Your task to perform on an android device: remove spam from my inbox in the gmail app Image 0: 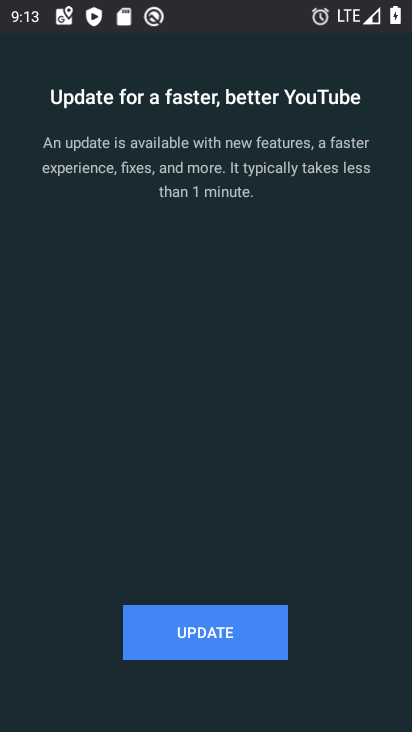
Step 0: press home button
Your task to perform on an android device: remove spam from my inbox in the gmail app Image 1: 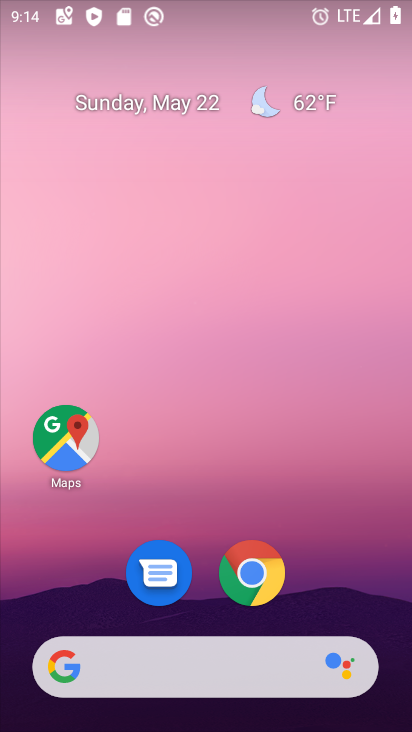
Step 1: drag from (321, 679) to (271, 3)
Your task to perform on an android device: remove spam from my inbox in the gmail app Image 2: 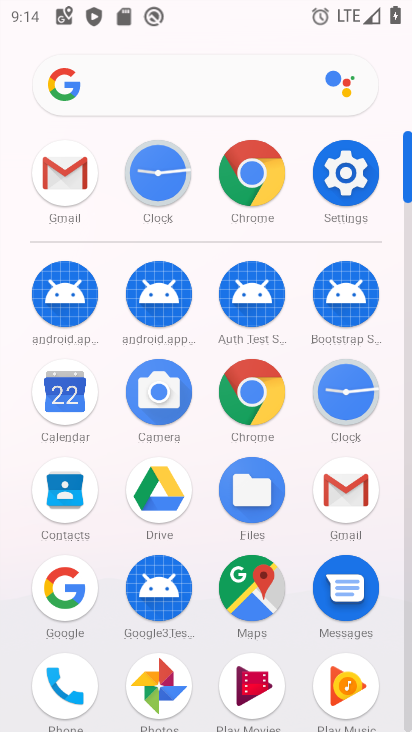
Step 2: click (349, 497)
Your task to perform on an android device: remove spam from my inbox in the gmail app Image 3: 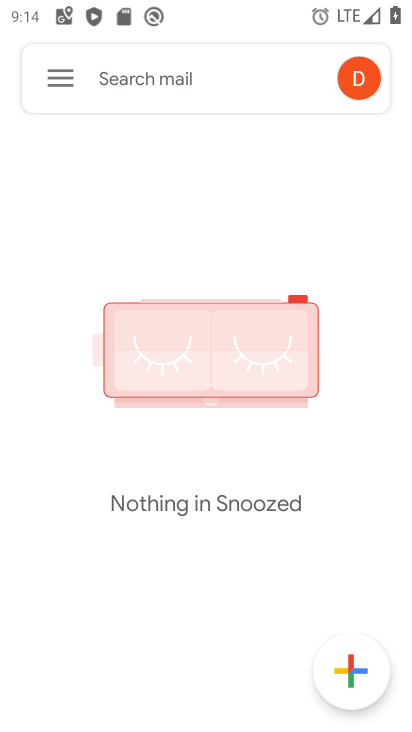
Step 3: click (47, 77)
Your task to perform on an android device: remove spam from my inbox in the gmail app Image 4: 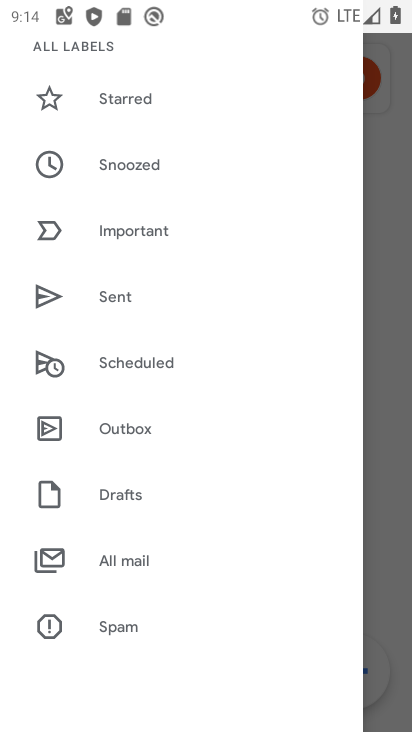
Step 4: click (136, 631)
Your task to perform on an android device: remove spam from my inbox in the gmail app Image 5: 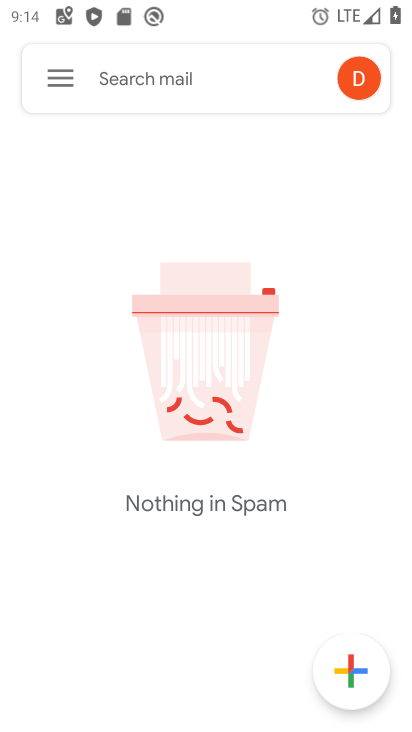
Step 5: task complete